Your task to perform on an android device: Check the news Image 0: 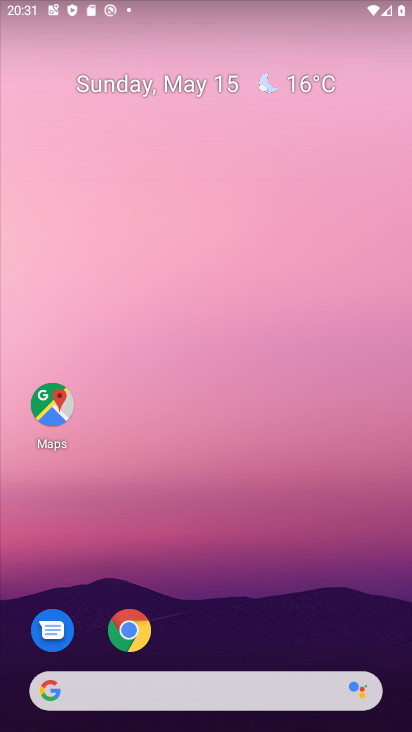
Step 0: click (227, 699)
Your task to perform on an android device: Check the news Image 1: 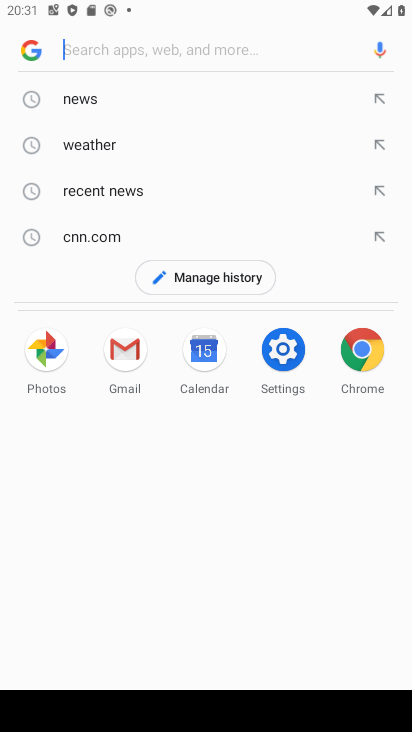
Step 1: click (80, 100)
Your task to perform on an android device: Check the news Image 2: 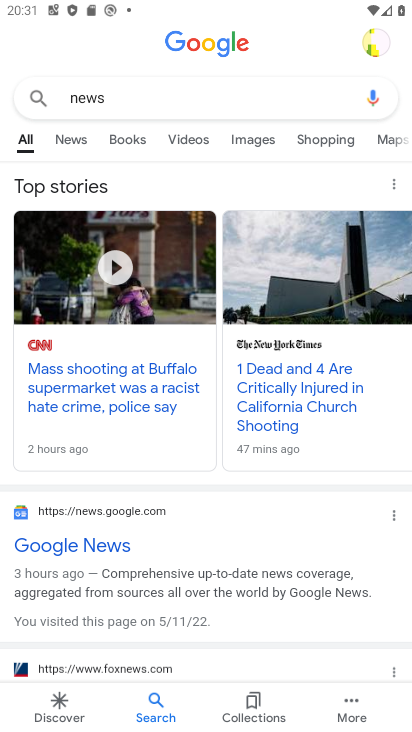
Step 2: task complete